Your task to perform on an android device: toggle show notifications on the lock screen Image 0: 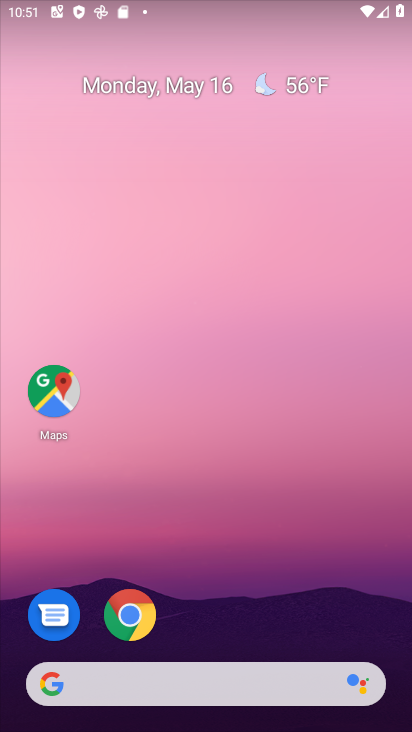
Step 0: drag from (249, 704) to (318, 269)
Your task to perform on an android device: toggle show notifications on the lock screen Image 1: 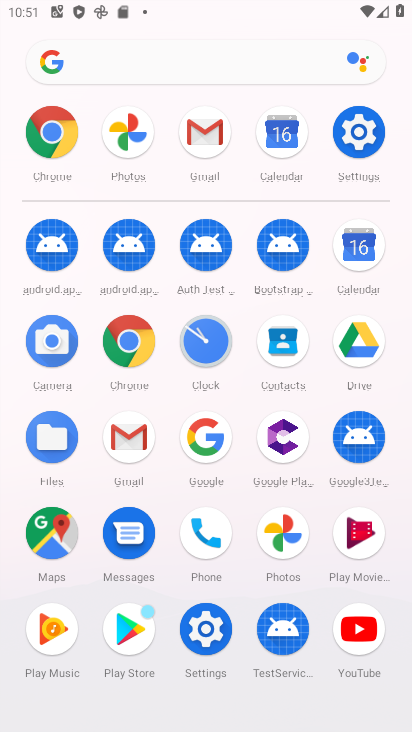
Step 1: click (347, 161)
Your task to perform on an android device: toggle show notifications on the lock screen Image 2: 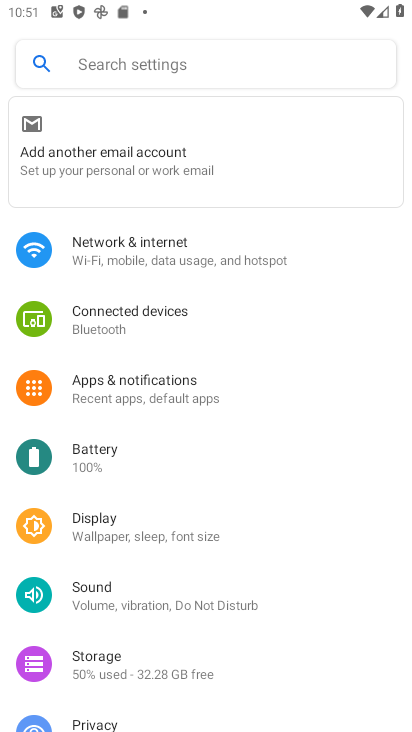
Step 2: click (127, 68)
Your task to perform on an android device: toggle show notifications on the lock screen Image 3: 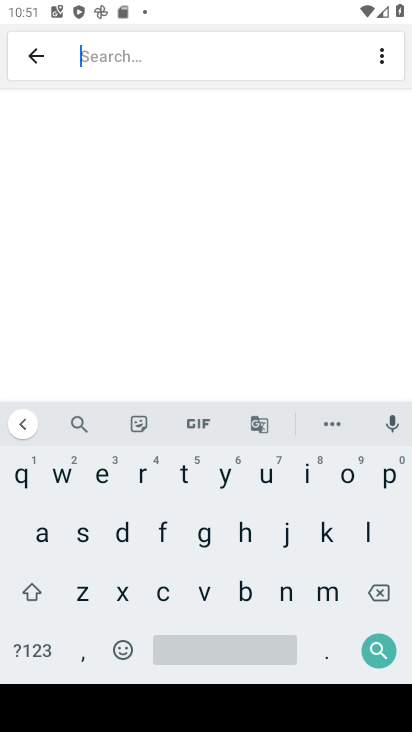
Step 3: click (285, 587)
Your task to perform on an android device: toggle show notifications on the lock screen Image 4: 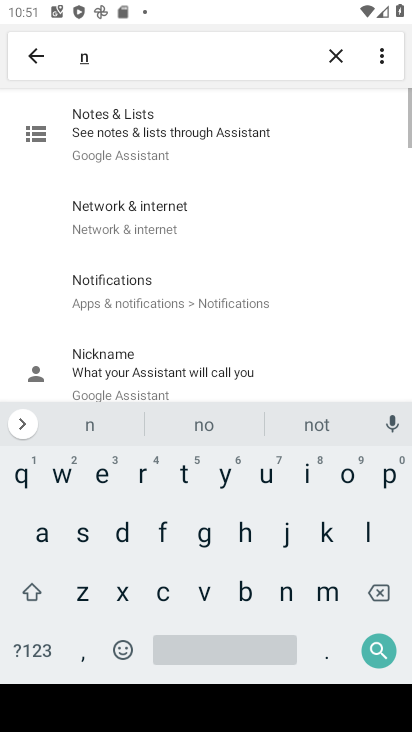
Step 4: click (347, 472)
Your task to perform on an android device: toggle show notifications on the lock screen Image 5: 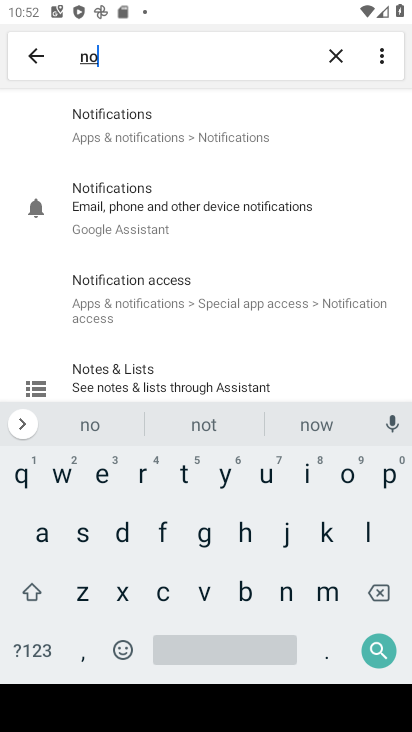
Step 5: click (154, 135)
Your task to perform on an android device: toggle show notifications on the lock screen Image 6: 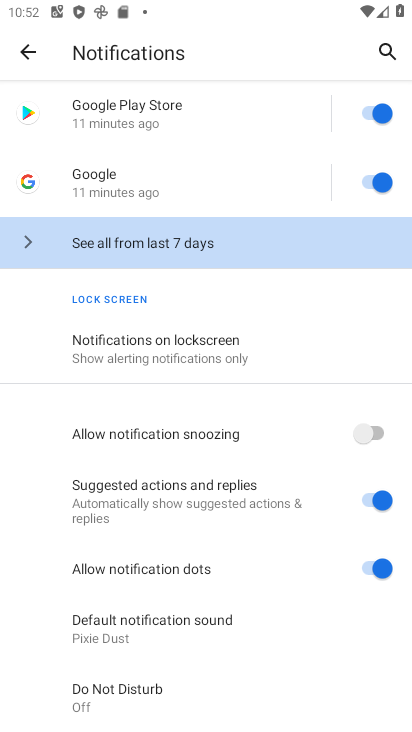
Step 6: click (153, 345)
Your task to perform on an android device: toggle show notifications on the lock screen Image 7: 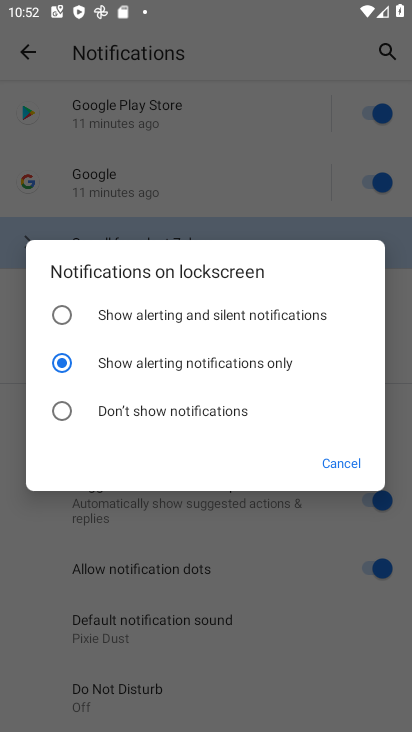
Step 7: click (191, 317)
Your task to perform on an android device: toggle show notifications on the lock screen Image 8: 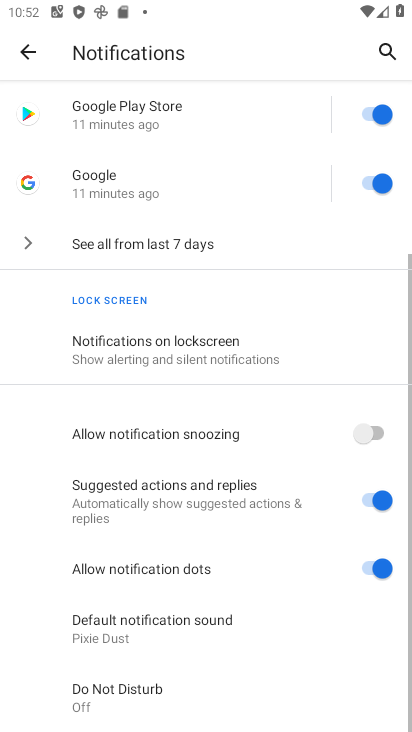
Step 8: task complete